Your task to perform on an android device: Search for vegetarian restaurants on Maps Image 0: 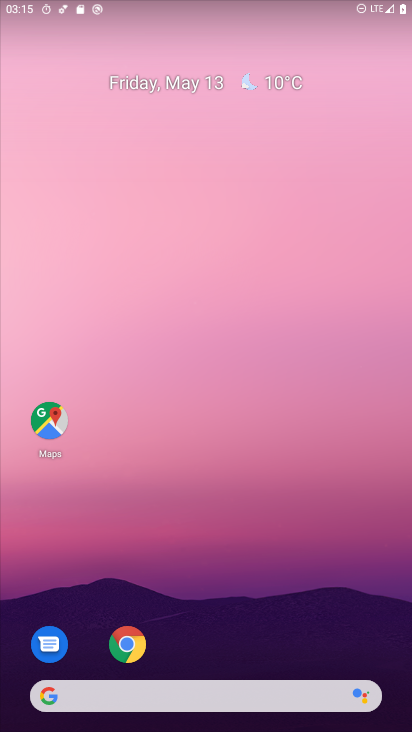
Step 0: click (328, 728)
Your task to perform on an android device: Search for vegetarian restaurants on Maps Image 1: 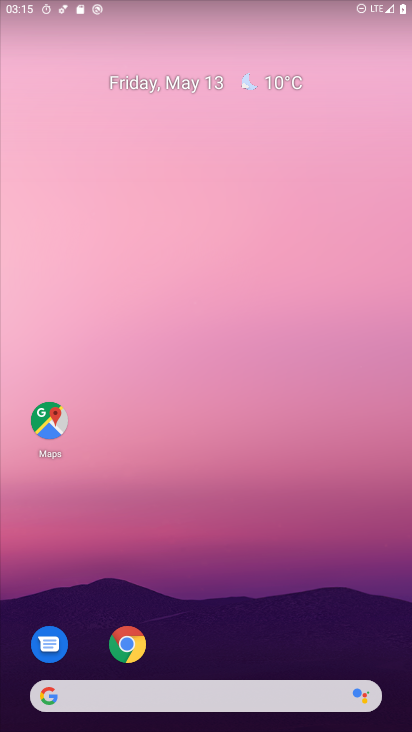
Step 1: drag from (314, 697) to (311, 118)
Your task to perform on an android device: Search for vegetarian restaurants on Maps Image 2: 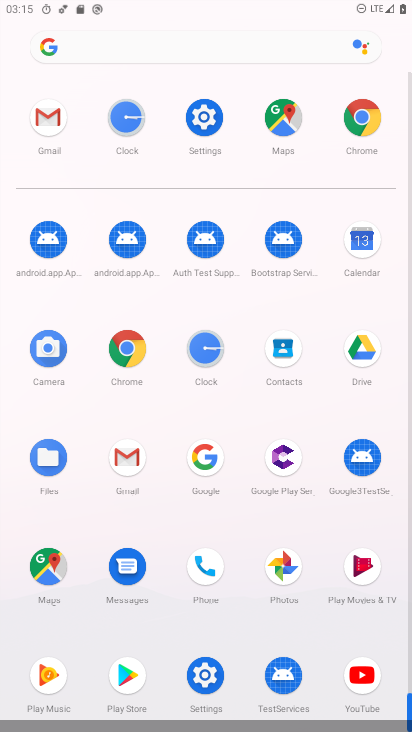
Step 2: click (125, 353)
Your task to perform on an android device: Search for vegetarian restaurants on Maps Image 3: 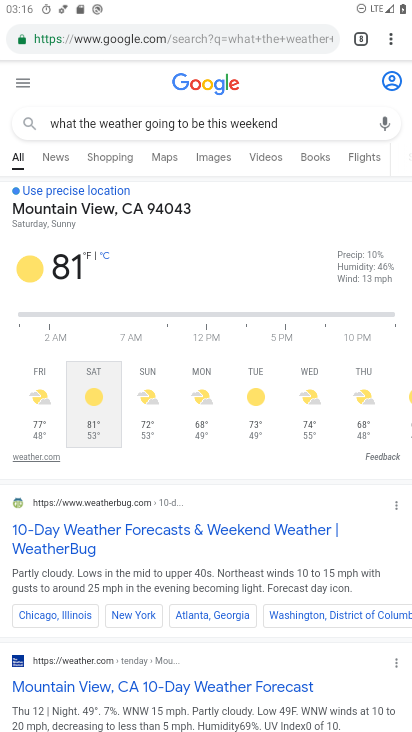
Step 3: press home button
Your task to perform on an android device: Search for vegetarian restaurants on Maps Image 4: 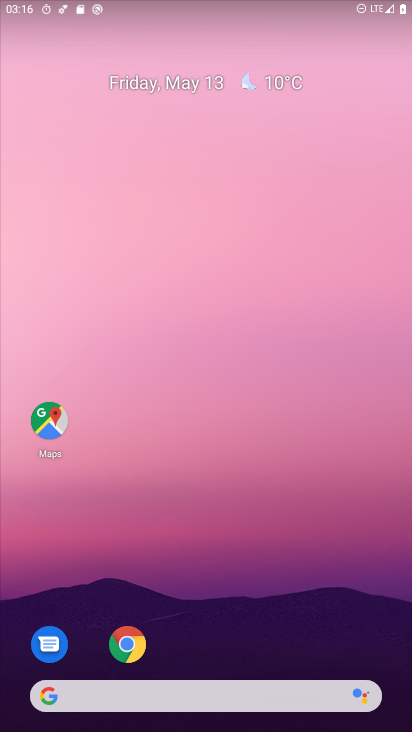
Step 4: drag from (350, 674) to (409, 158)
Your task to perform on an android device: Search for vegetarian restaurants on Maps Image 5: 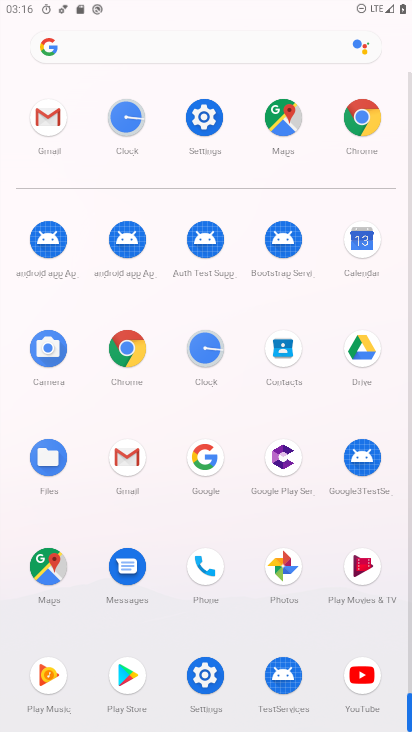
Step 5: click (51, 582)
Your task to perform on an android device: Search for vegetarian restaurants on Maps Image 6: 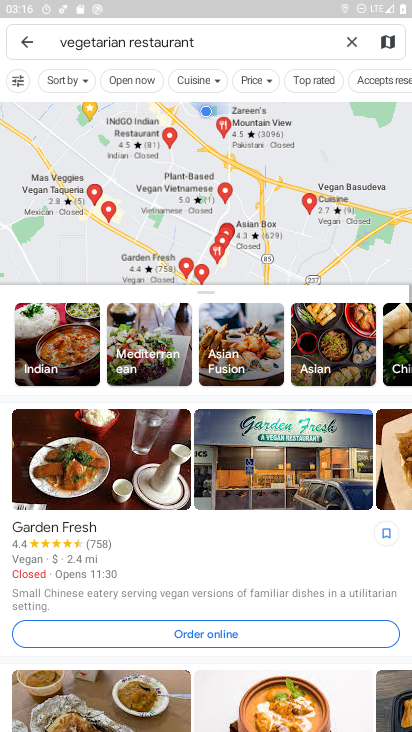
Step 6: task complete